Your task to perform on an android device: uninstall "Cash App" Image 0: 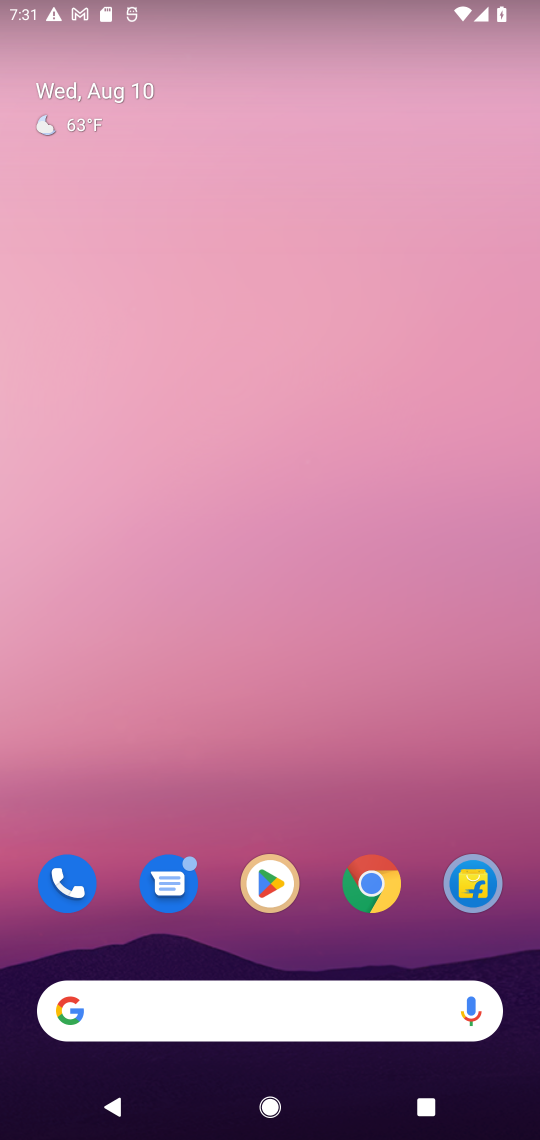
Step 0: click (267, 867)
Your task to perform on an android device: uninstall "Cash App" Image 1: 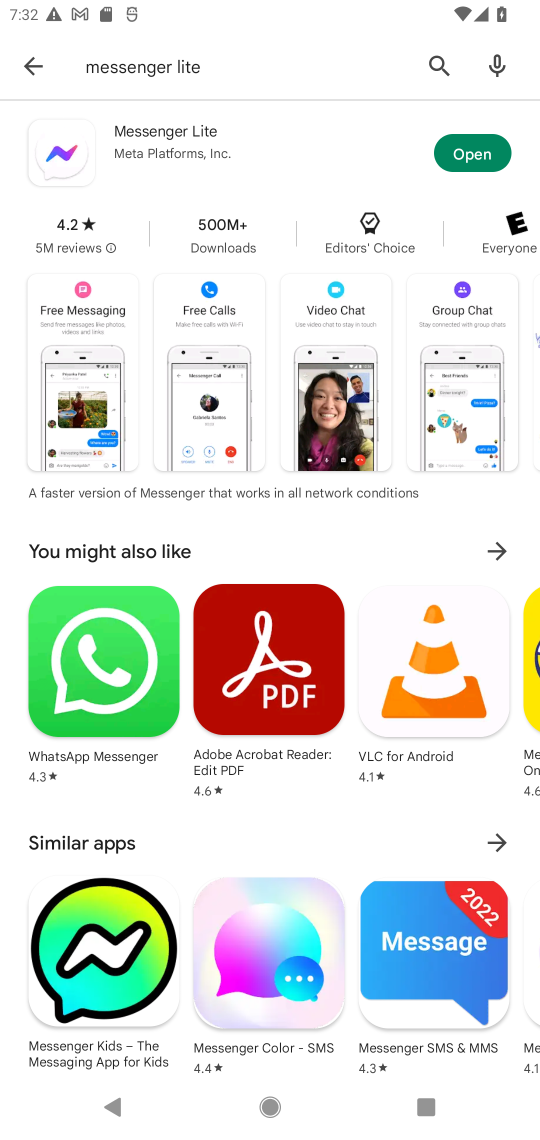
Step 1: click (434, 52)
Your task to perform on an android device: uninstall "Cash App" Image 2: 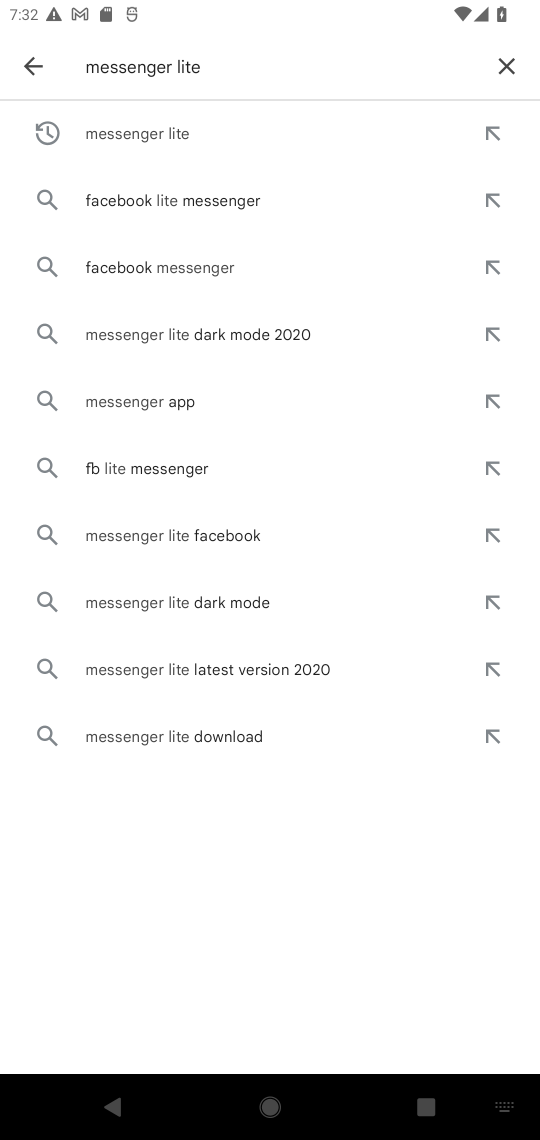
Step 2: click (190, 145)
Your task to perform on an android device: uninstall "Cash App" Image 3: 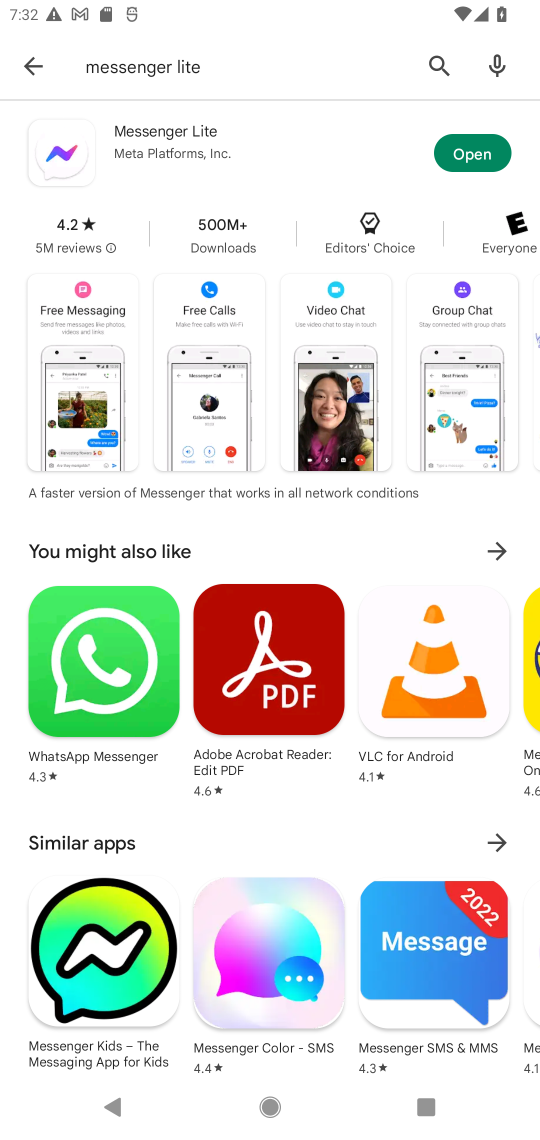
Step 3: click (436, 66)
Your task to perform on an android device: uninstall "Cash App" Image 4: 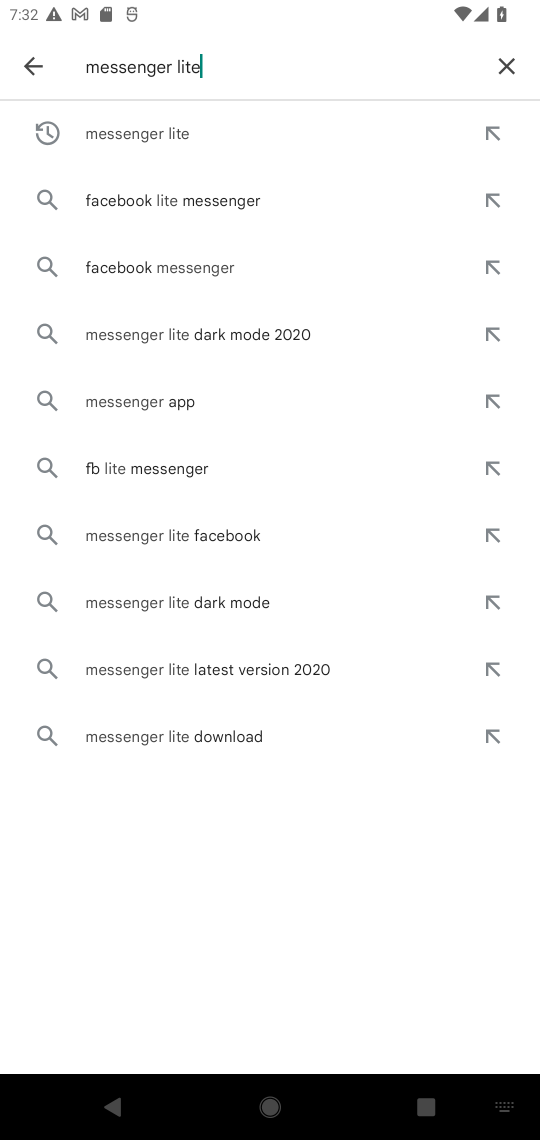
Step 4: click (502, 63)
Your task to perform on an android device: uninstall "Cash App" Image 5: 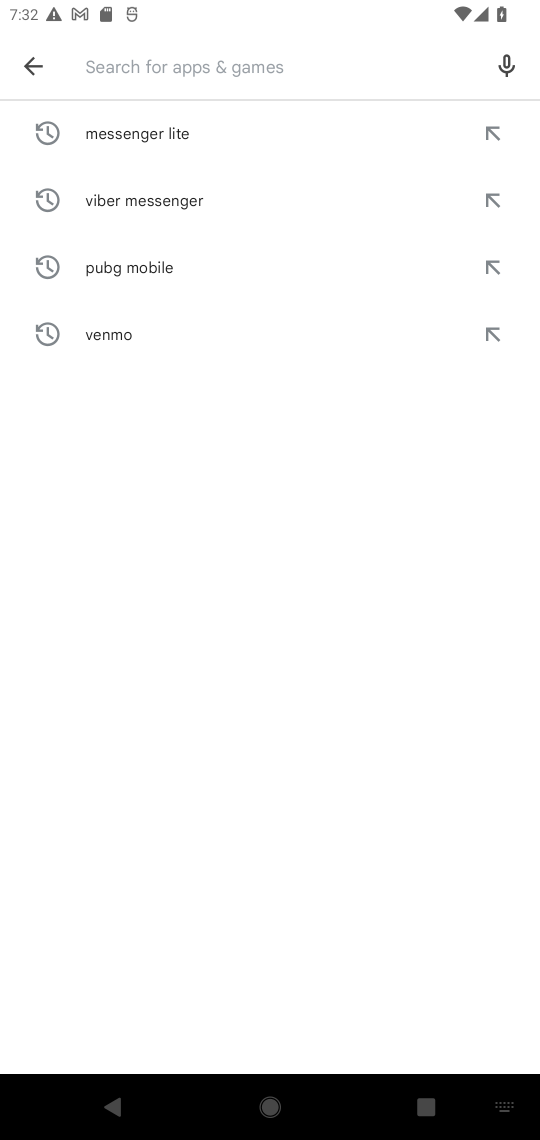
Step 5: type "Cash App"
Your task to perform on an android device: uninstall "Cash App" Image 6: 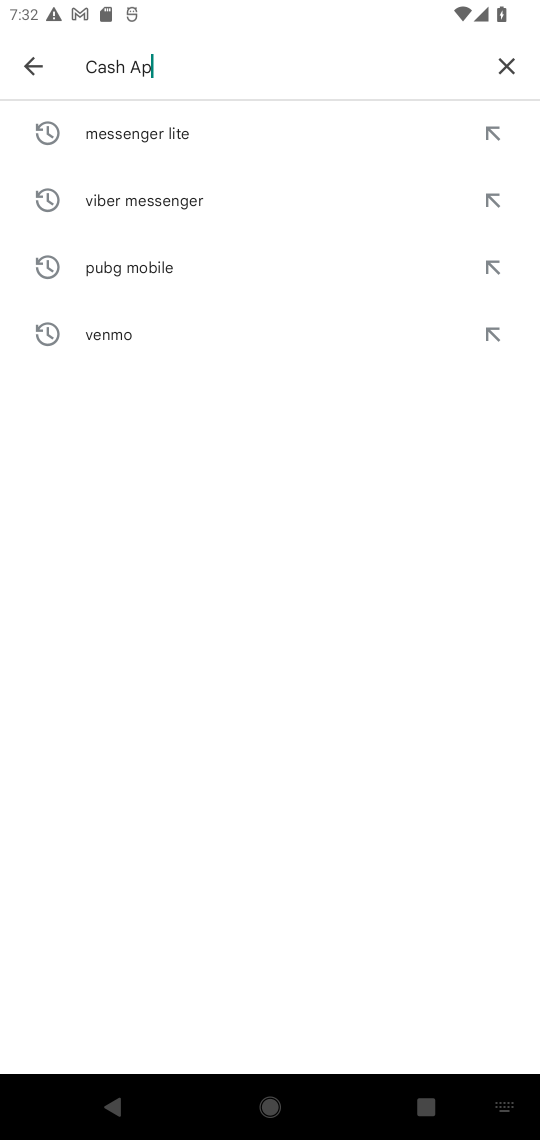
Step 6: type ""
Your task to perform on an android device: uninstall "Cash App" Image 7: 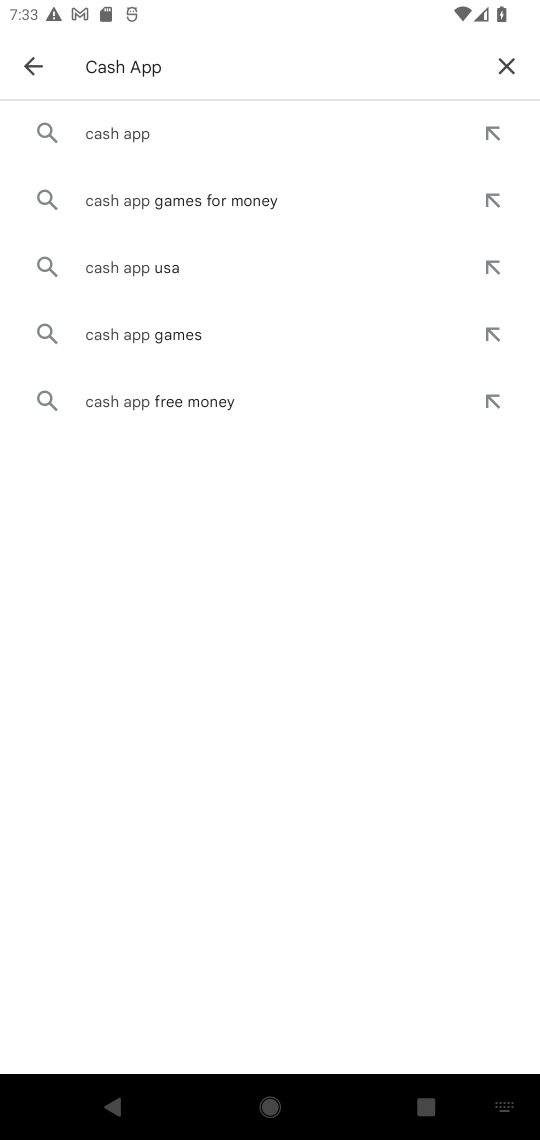
Step 7: click (183, 132)
Your task to perform on an android device: uninstall "Cash App" Image 8: 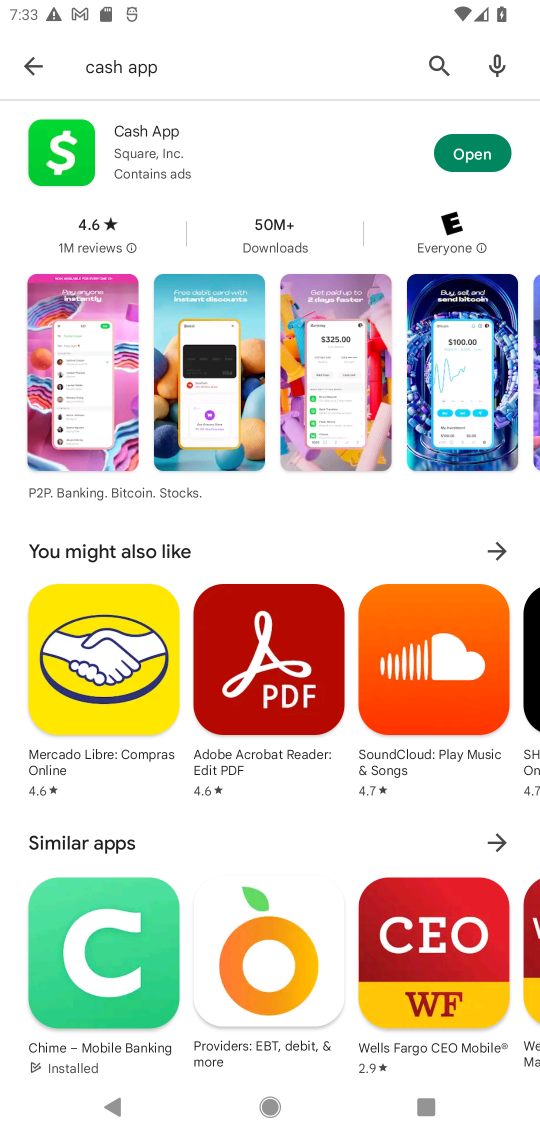
Step 8: click (225, 142)
Your task to perform on an android device: uninstall "Cash App" Image 9: 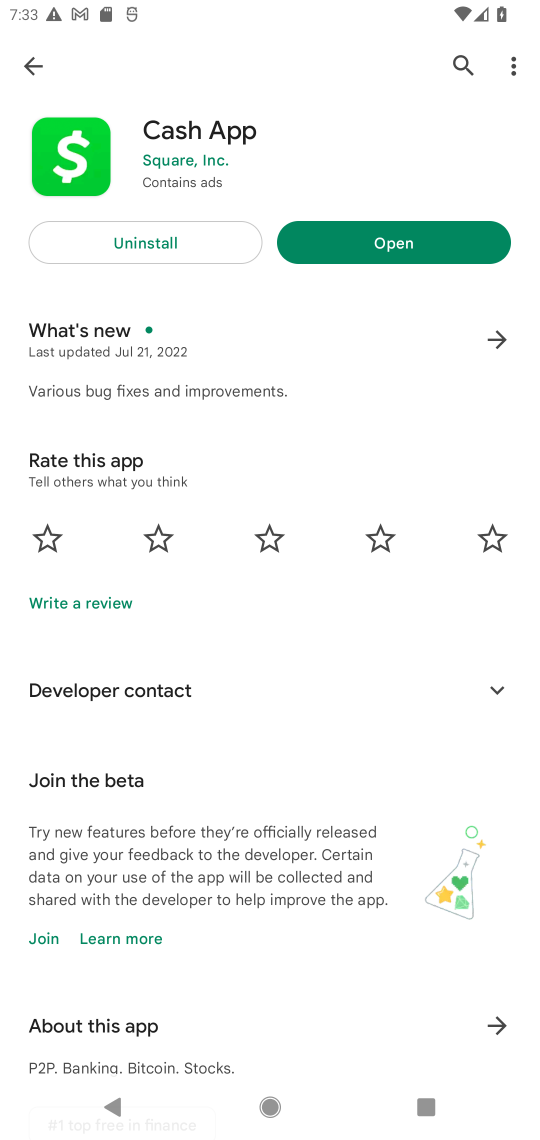
Step 9: click (188, 226)
Your task to perform on an android device: uninstall "Cash App" Image 10: 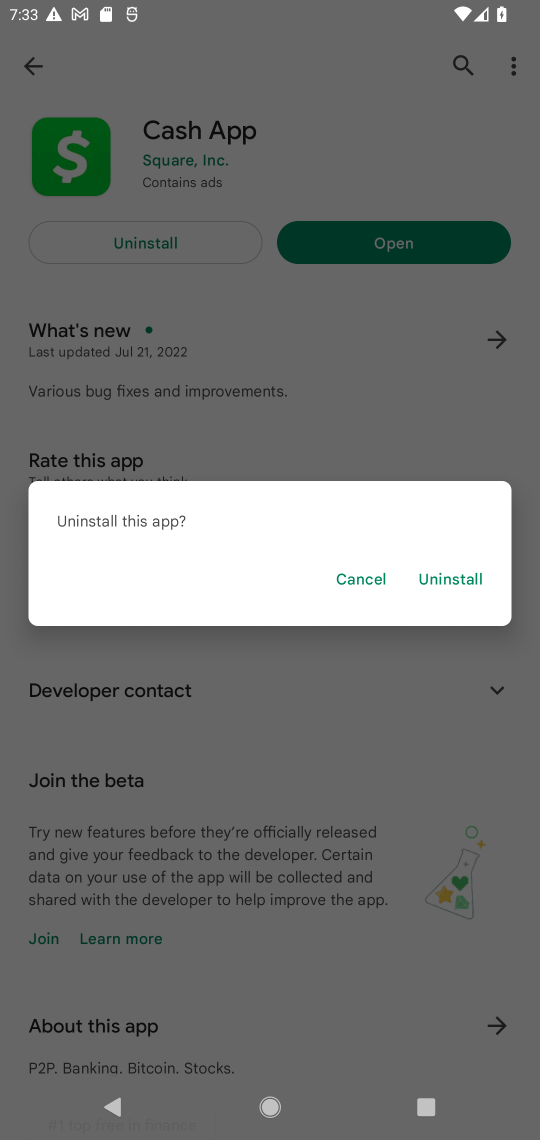
Step 10: click (441, 583)
Your task to perform on an android device: uninstall "Cash App" Image 11: 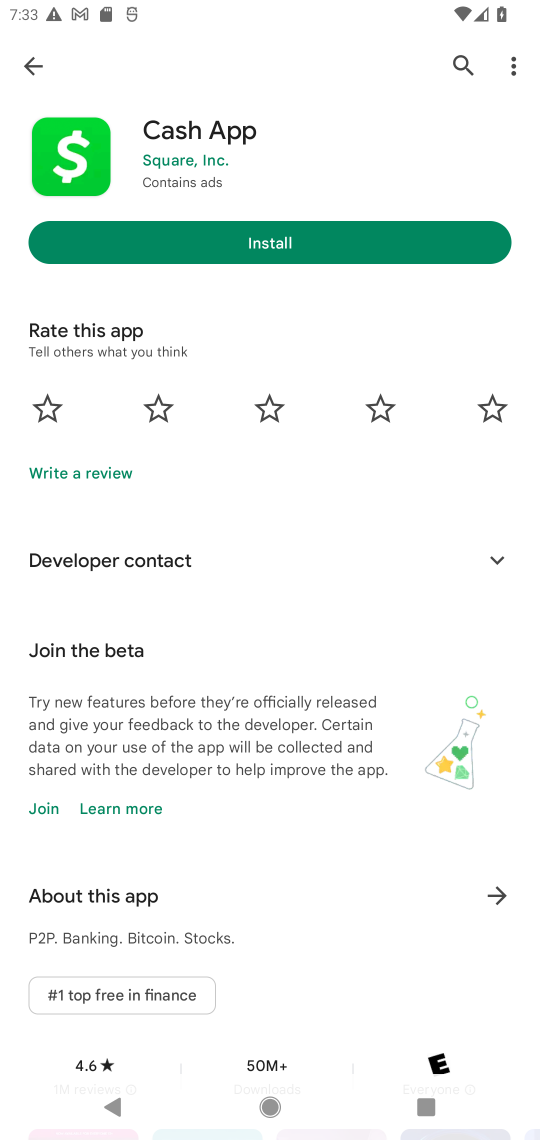
Step 11: task complete